Your task to perform on an android device: How big is the moon? Image 0: 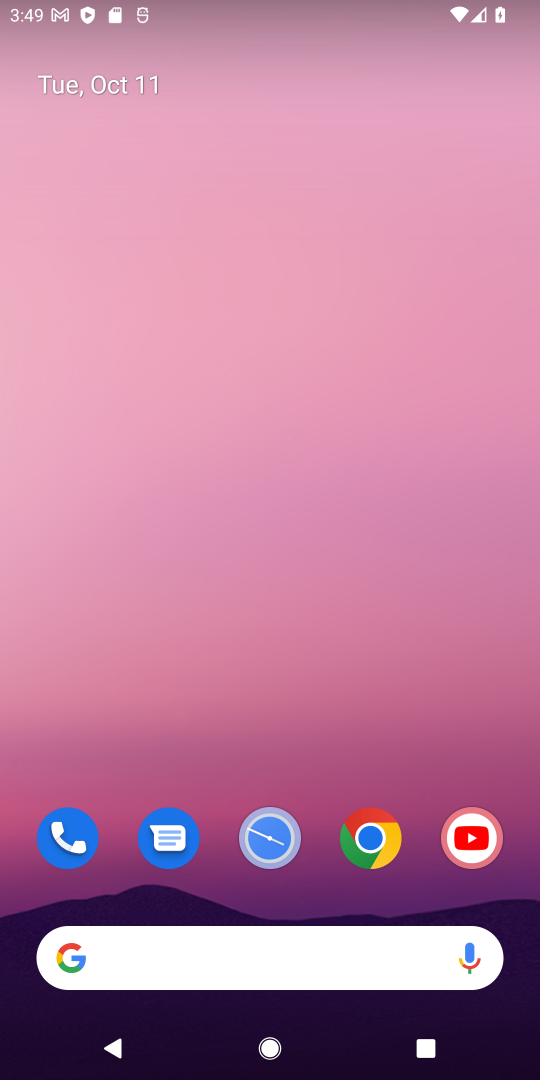
Step 0: click (155, 961)
Your task to perform on an android device: How big is the moon? Image 1: 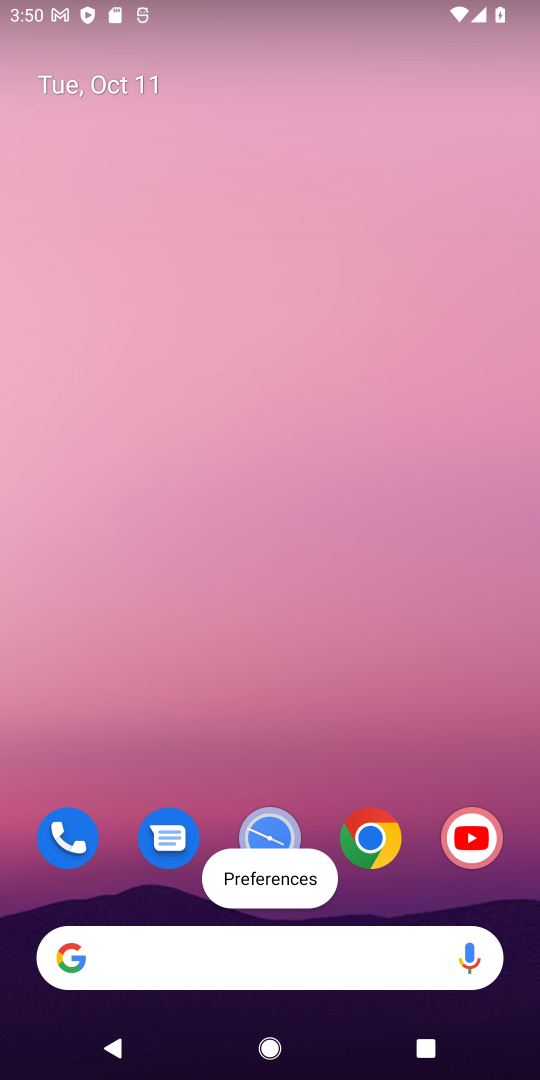
Step 1: click (252, 968)
Your task to perform on an android device: How big is the moon? Image 2: 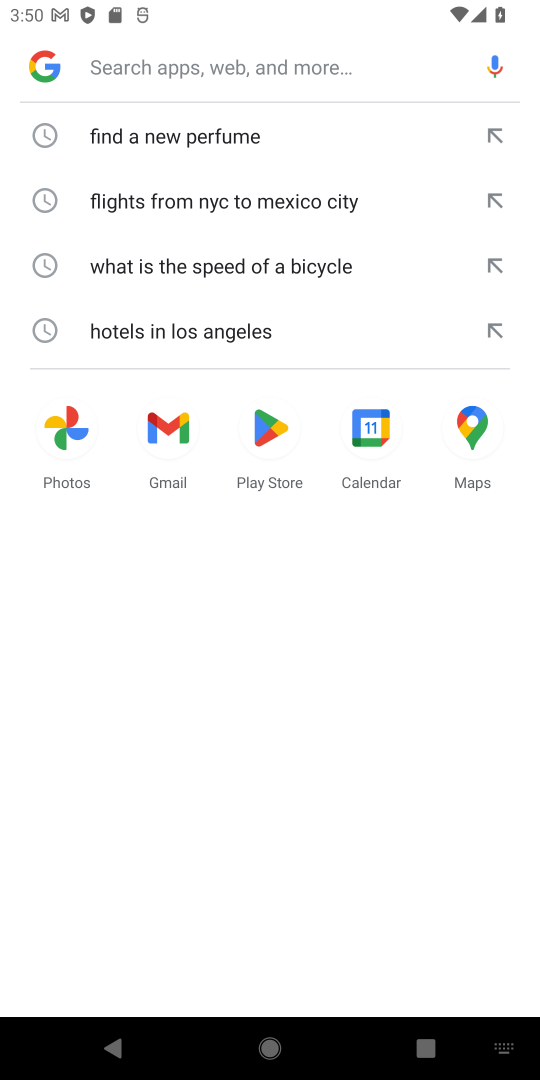
Step 2: click (126, 62)
Your task to perform on an android device: How big is the moon? Image 3: 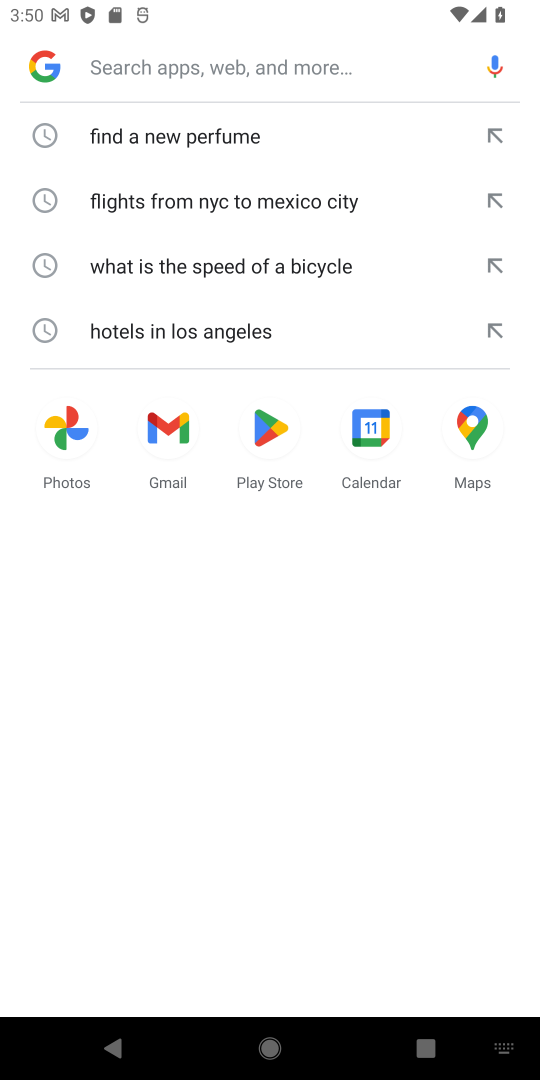
Step 3: type "How big is the moon?"
Your task to perform on an android device: How big is the moon? Image 4: 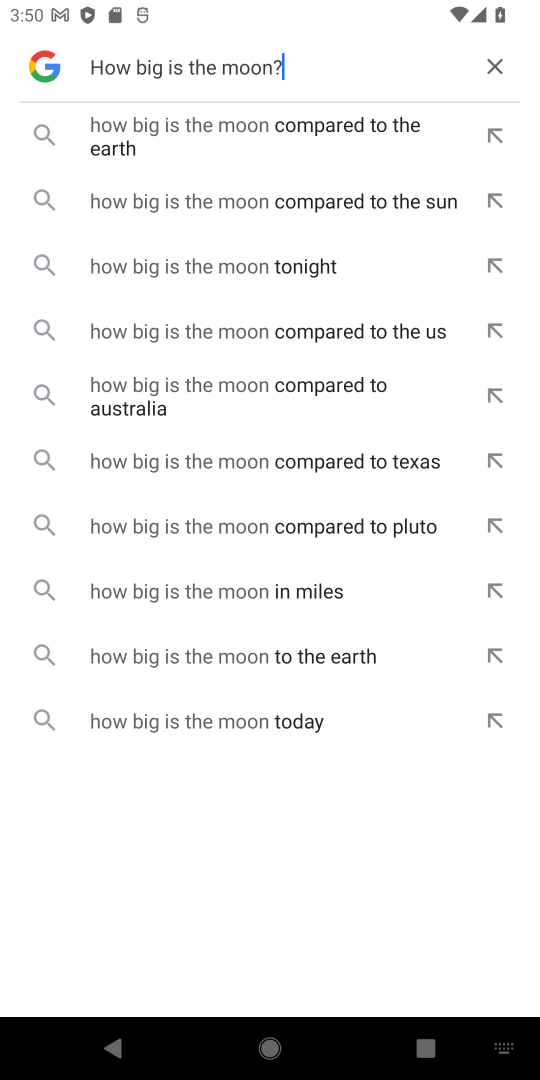
Step 4: click (192, 270)
Your task to perform on an android device: How big is the moon? Image 5: 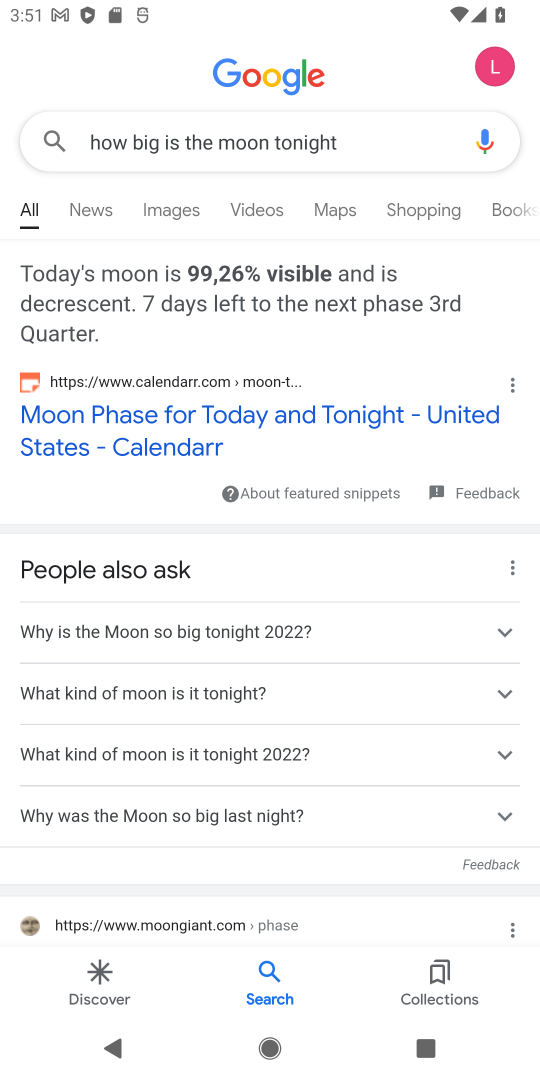
Step 5: task complete